Your task to perform on an android device: Search for Italian restaurants on Maps Image 0: 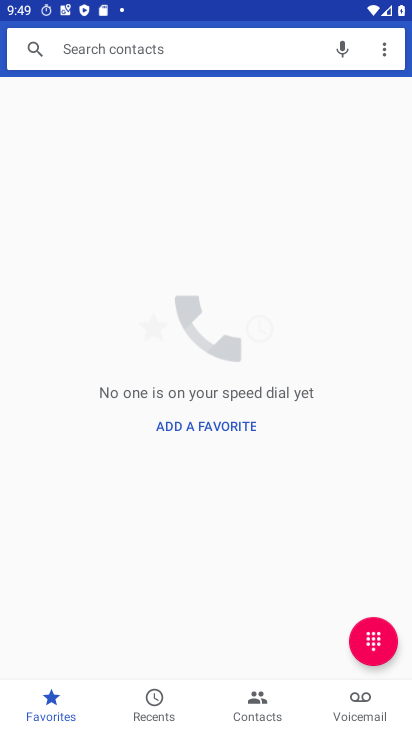
Step 0: press home button
Your task to perform on an android device: Search for Italian restaurants on Maps Image 1: 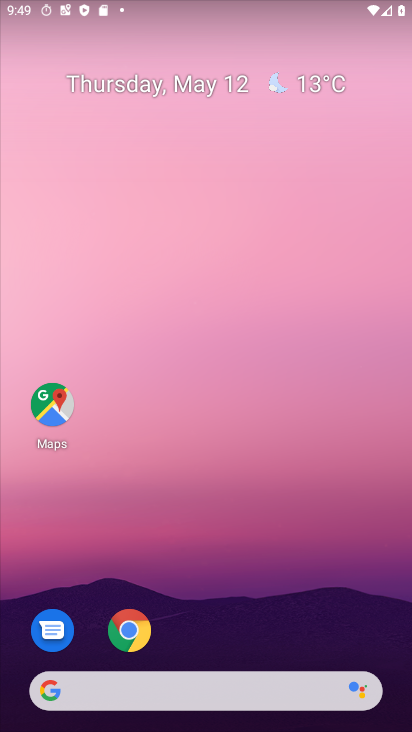
Step 1: click (49, 387)
Your task to perform on an android device: Search for Italian restaurants on Maps Image 2: 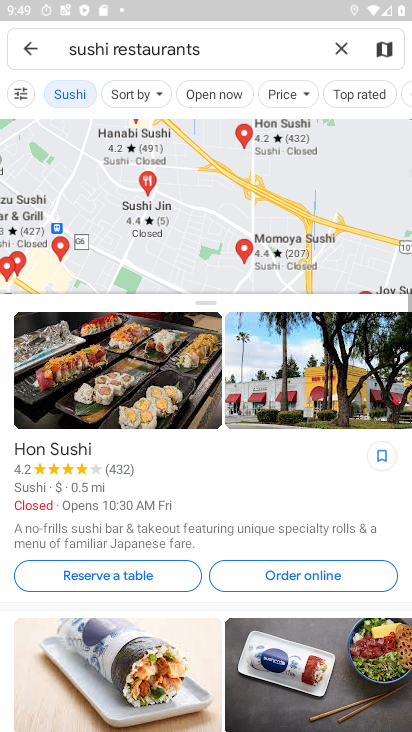
Step 2: click (341, 45)
Your task to perform on an android device: Search for Italian restaurants on Maps Image 3: 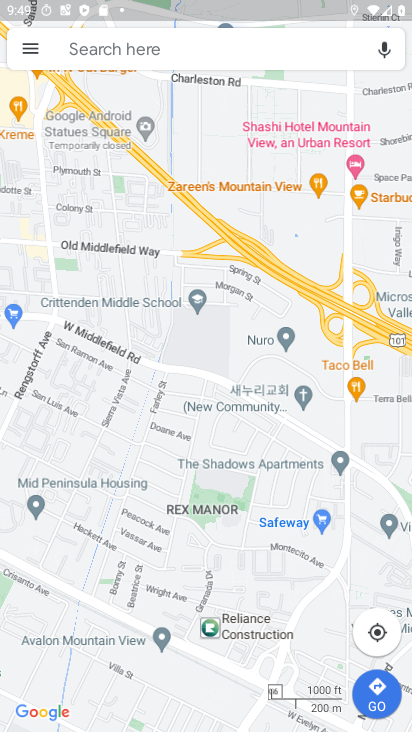
Step 3: click (165, 55)
Your task to perform on an android device: Search for Italian restaurants on Maps Image 4: 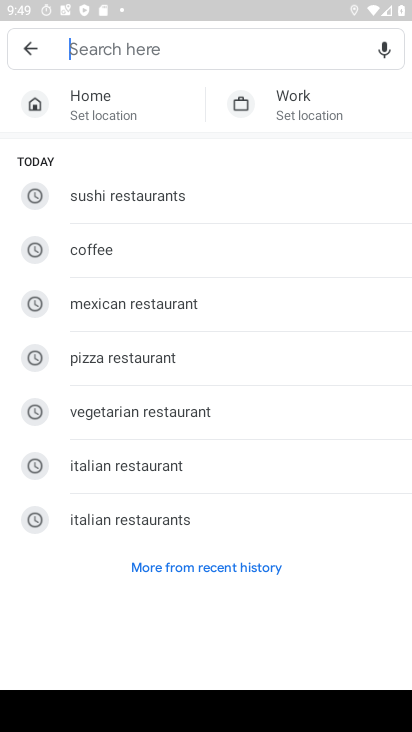
Step 4: click (157, 463)
Your task to perform on an android device: Search for Italian restaurants on Maps Image 5: 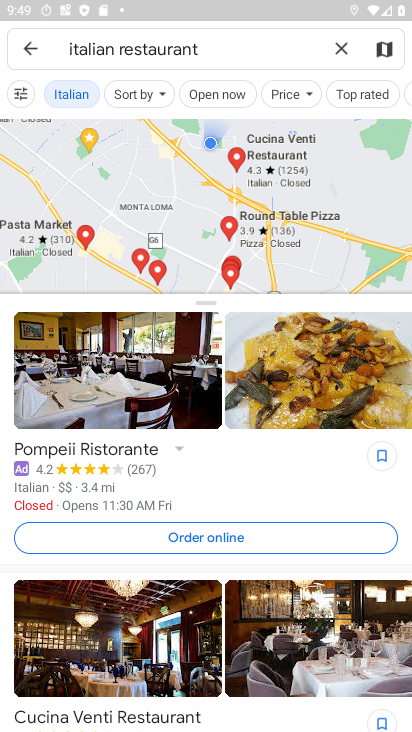
Step 5: task complete